Your task to perform on an android device: turn off picture-in-picture Image 0: 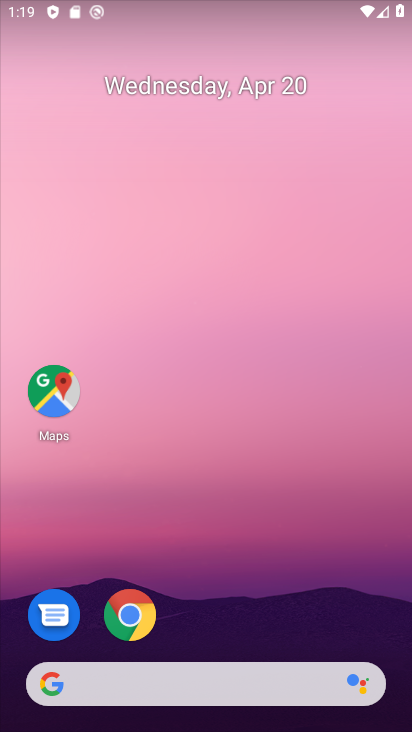
Step 0: click (117, 620)
Your task to perform on an android device: turn off picture-in-picture Image 1: 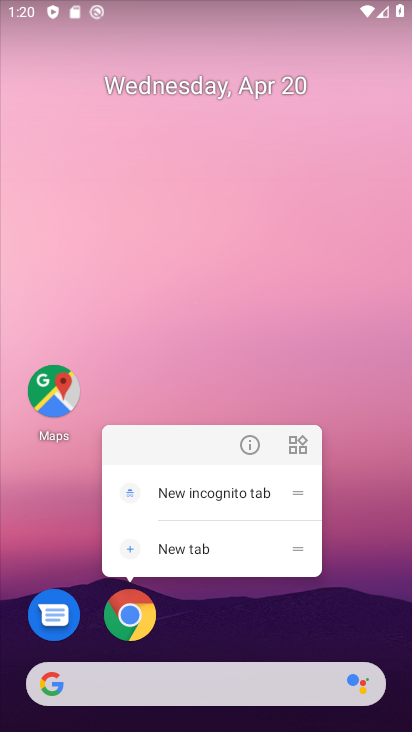
Step 1: click (253, 445)
Your task to perform on an android device: turn off picture-in-picture Image 2: 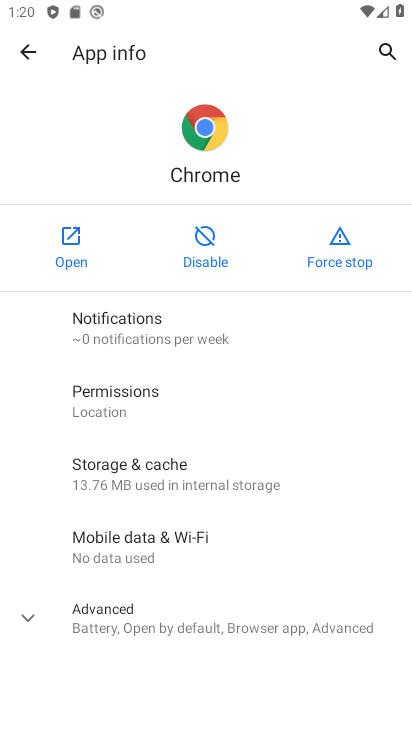
Step 2: click (125, 620)
Your task to perform on an android device: turn off picture-in-picture Image 3: 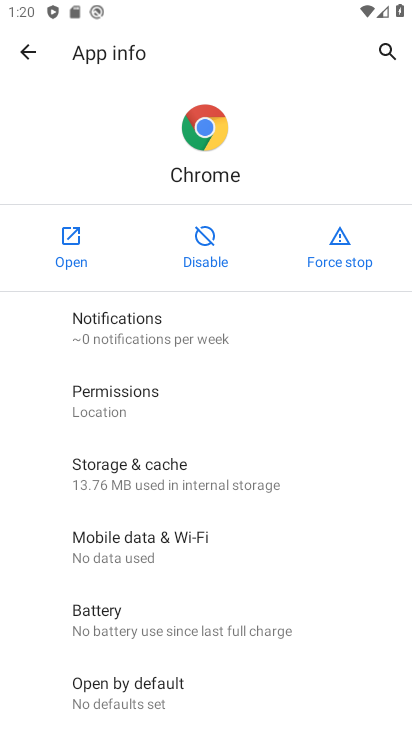
Step 3: drag from (191, 648) to (190, 566)
Your task to perform on an android device: turn off picture-in-picture Image 4: 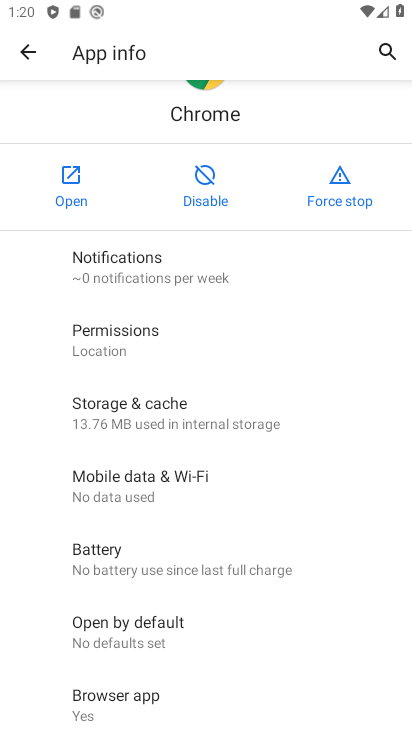
Step 4: drag from (229, 674) to (225, 604)
Your task to perform on an android device: turn off picture-in-picture Image 5: 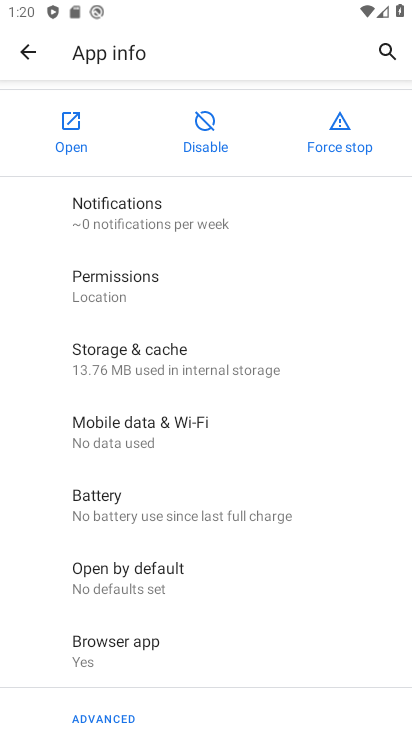
Step 5: drag from (234, 659) to (227, 588)
Your task to perform on an android device: turn off picture-in-picture Image 6: 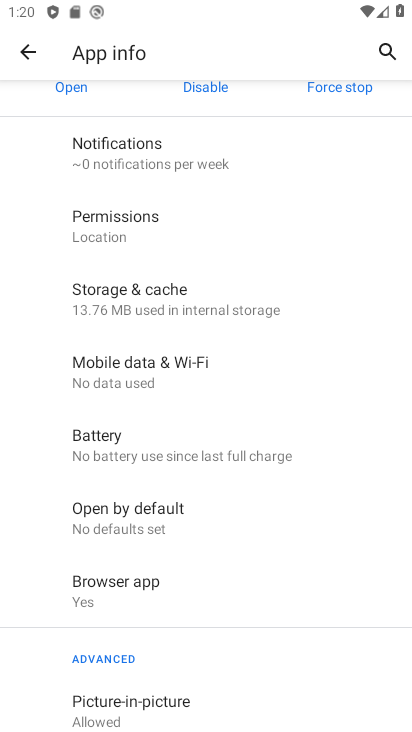
Step 6: drag from (261, 650) to (255, 570)
Your task to perform on an android device: turn off picture-in-picture Image 7: 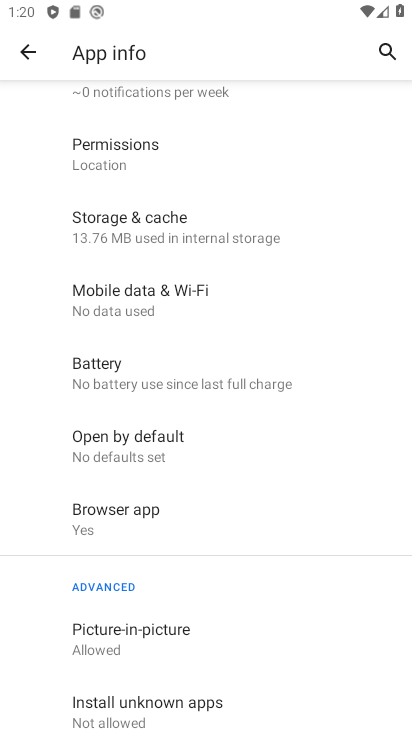
Step 7: drag from (273, 646) to (271, 551)
Your task to perform on an android device: turn off picture-in-picture Image 8: 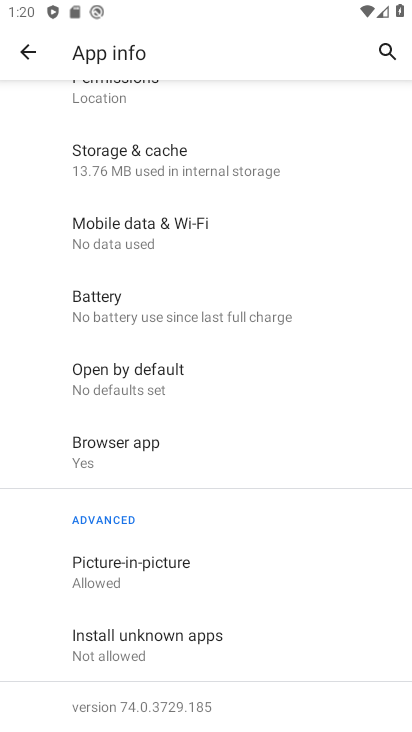
Step 8: click (229, 565)
Your task to perform on an android device: turn off picture-in-picture Image 9: 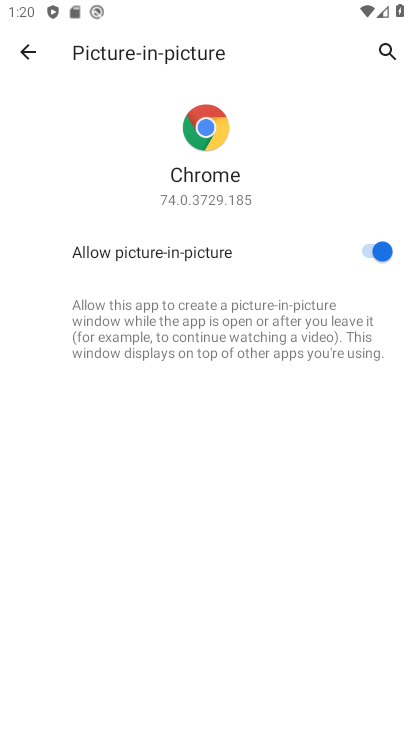
Step 9: click (365, 251)
Your task to perform on an android device: turn off picture-in-picture Image 10: 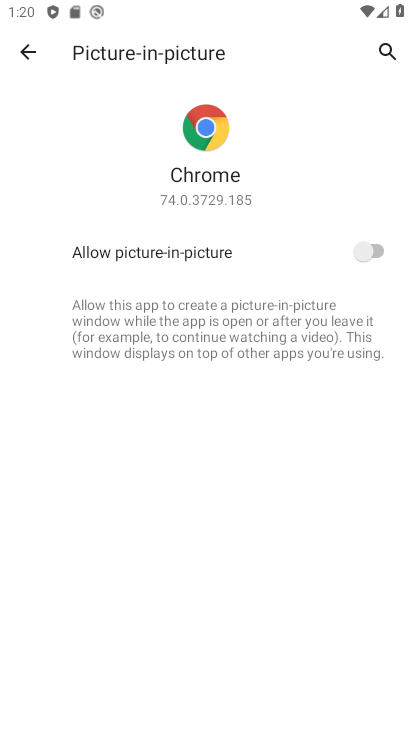
Step 10: task complete